Your task to perform on an android device: Go to calendar. Show me events next week Image 0: 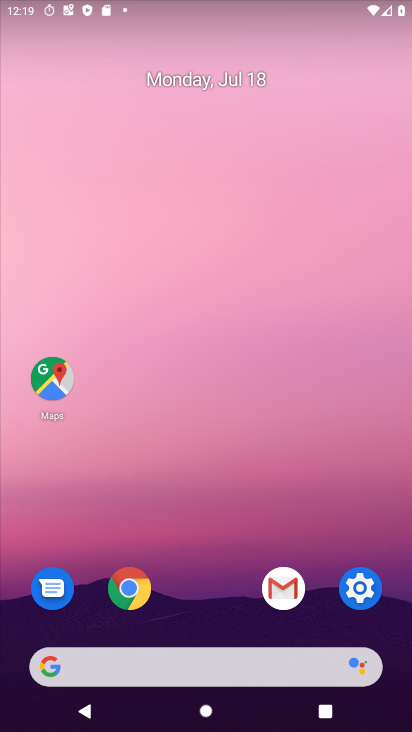
Step 0: drag from (272, 691) to (226, 138)
Your task to perform on an android device: Go to calendar. Show me events next week Image 1: 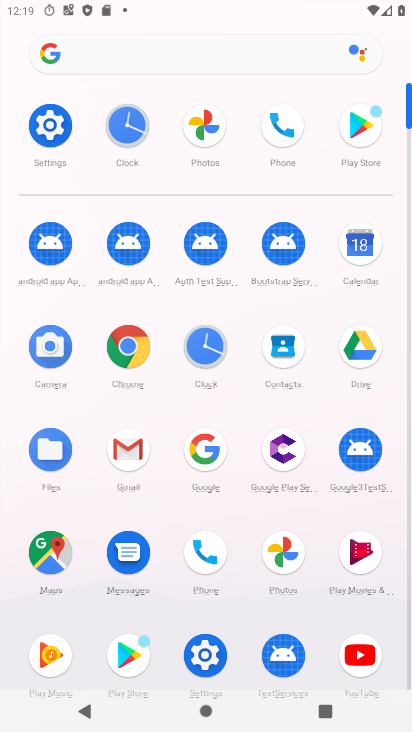
Step 1: click (361, 259)
Your task to perform on an android device: Go to calendar. Show me events next week Image 2: 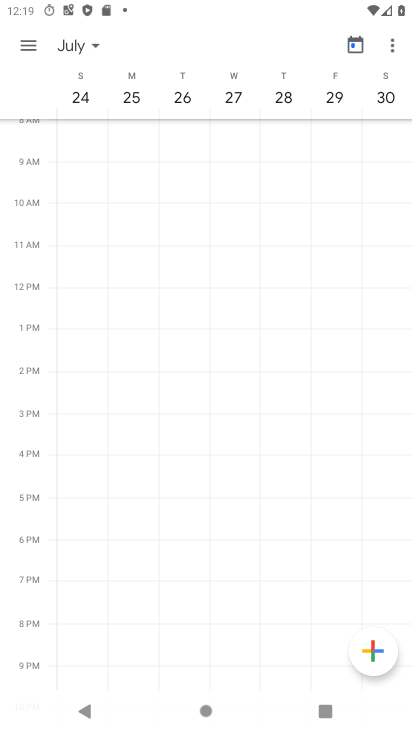
Step 2: click (43, 55)
Your task to perform on an android device: Go to calendar. Show me events next week Image 3: 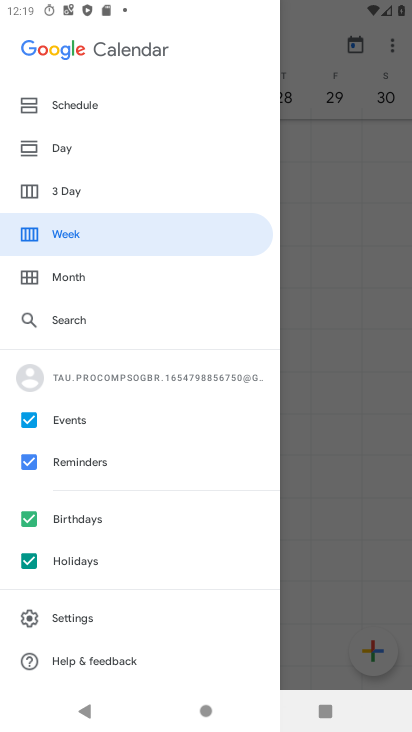
Step 3: click (78, 276)
Your task to perform on an android device: Go to calendar. Show me events next week Image 4: 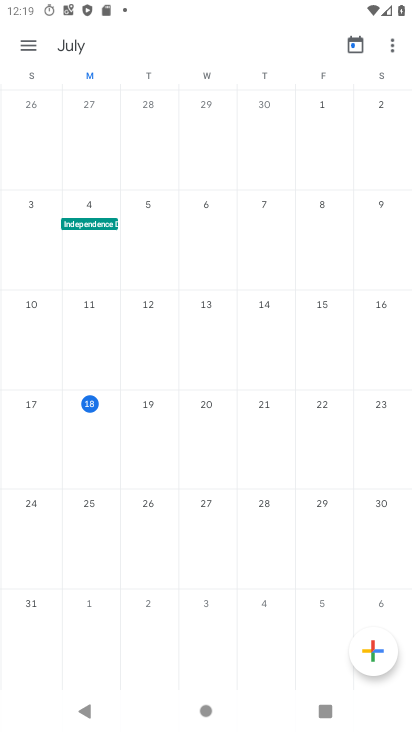
Step 4: click (95, 505)
Your task to perform on an android device: Go to calendar. Show me events next week Image 5: 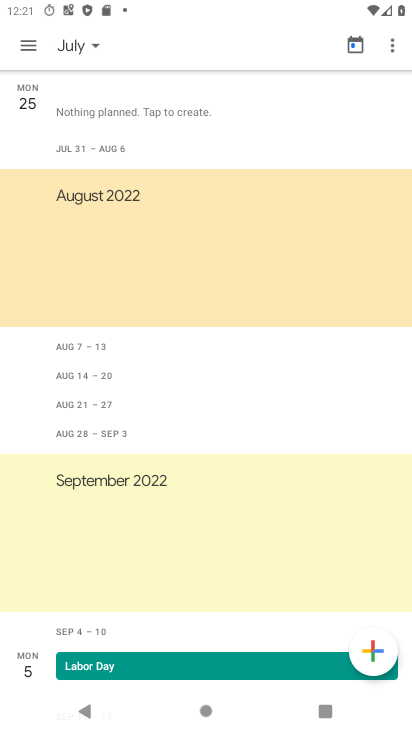
Step 5: task complete